Your task to perform on an android device: change the clock display to digital Image 0: 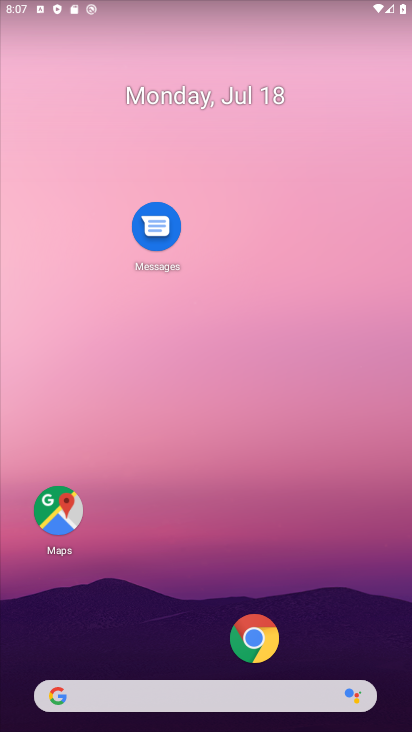
Step 0: drag from (203, 656) to (213, 140)
Your task to perform on an android device: change the clock display to digital Image 1: 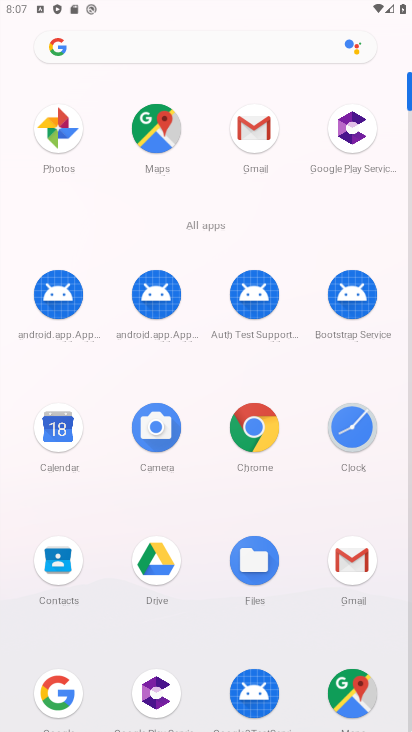
Step 1: click (345, 423)
Your task to perform on an android device: change the clock display to digital Image 2: 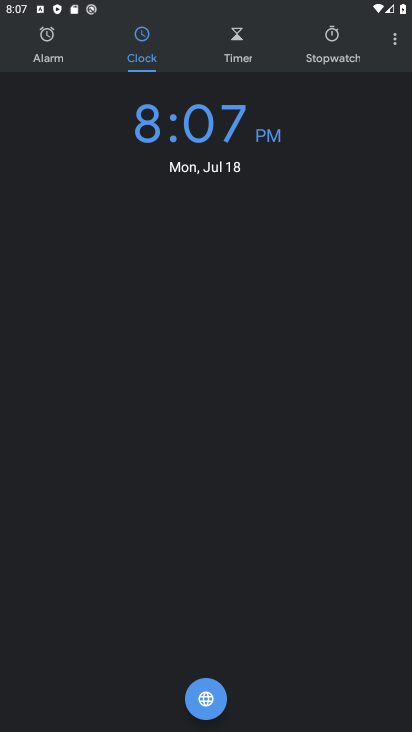
Step 2: click (392, 41)
Your task to perform on an android device: change the clock display to digital Image 3: 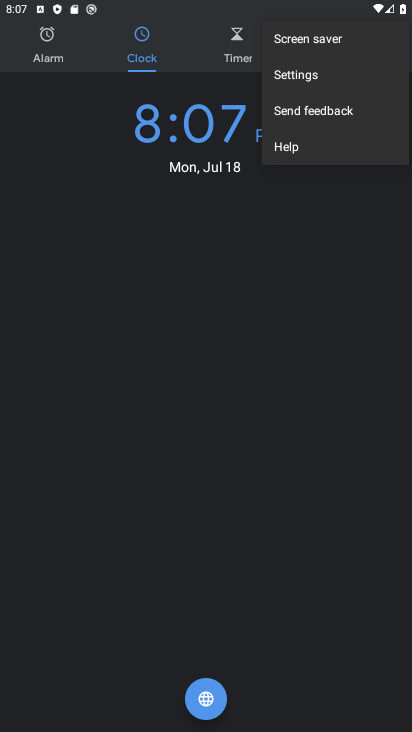
Step 3: click (314, 79)
Your task to perform on an android device: change the clock display to digital Image 4: 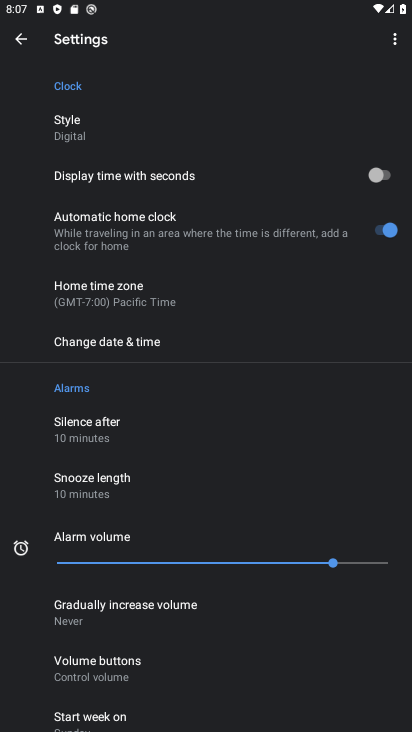
Step 4: click (94, 131)
Your task to perform on an android device: change the clock display to digital Image 5: 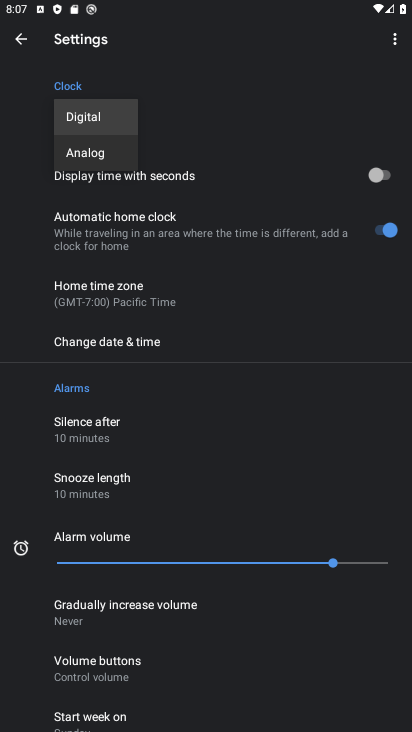
Step 5: click (114, 120)
Your task to perform on an android device: change the clock display to digital Image 6: 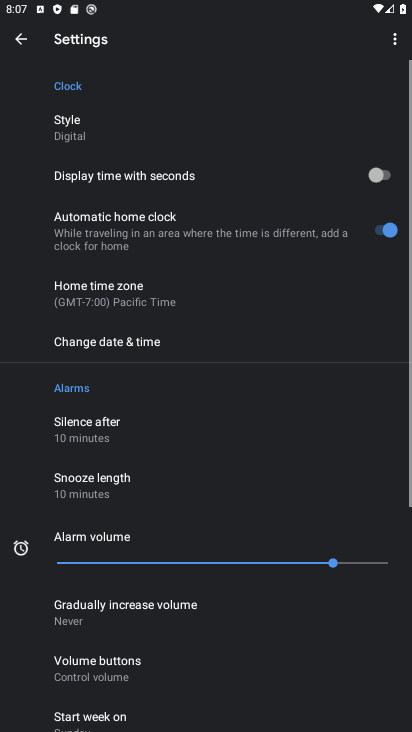
Step 6: task complete